Your task to perform on an android device: Open accessibility settings Image 0: 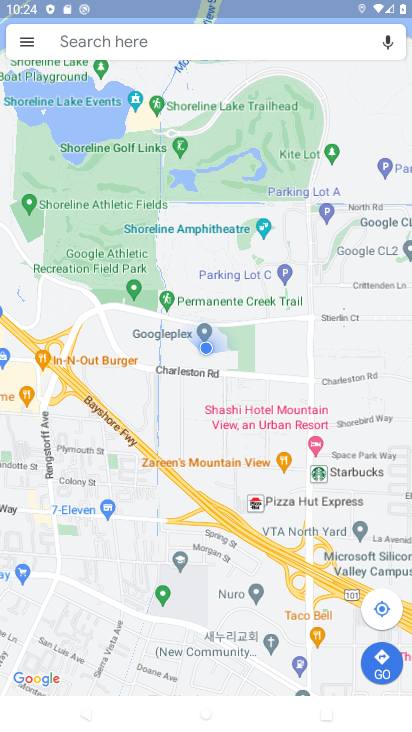
Step 0: press home button
Your task to perform on an android device: Open accessibility settings Image 1: 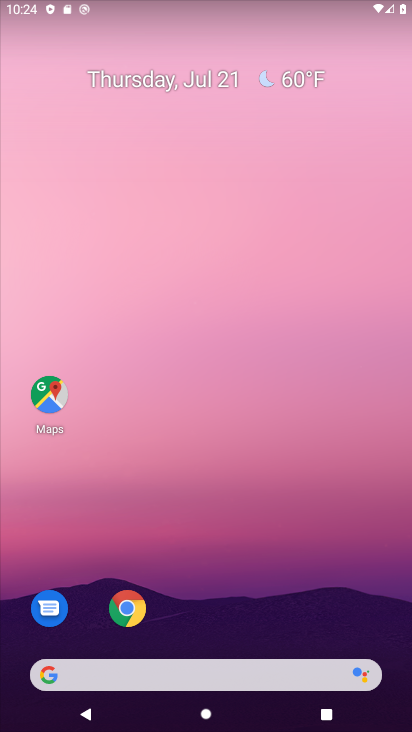
Step 1: drag from (196, 631) to (96, 50)
Your task to perform on an android device: Open accessibility settings Image 2: 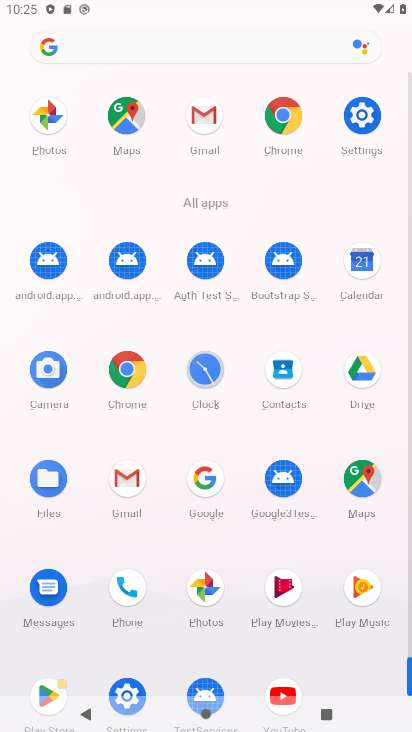
Step 2: click (123, 684)
Your task to perform on an android device: Open accessibility settings Image 3: 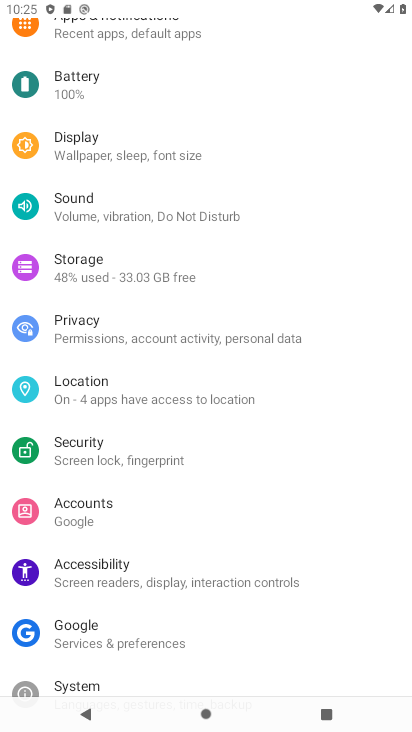
Step 3: click (131, 576)
Your task to perform on an android device: Open accessibility settings Image 4: 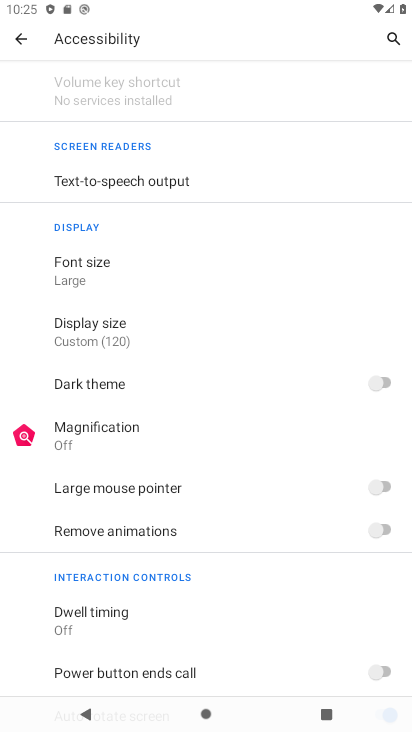
Step 4: task complete